Your task to perform on an android device: change the clock display to digital Image 0: 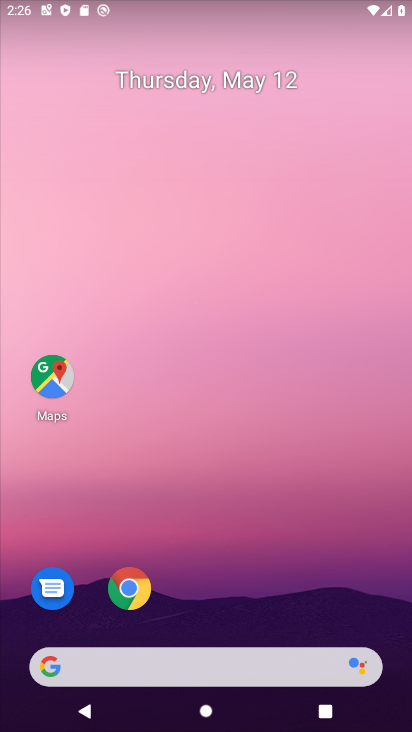
Step 0: drag from (238, 584) to (300, 56)
Your task to perform on an android device: change the clock display to digital Image 1: 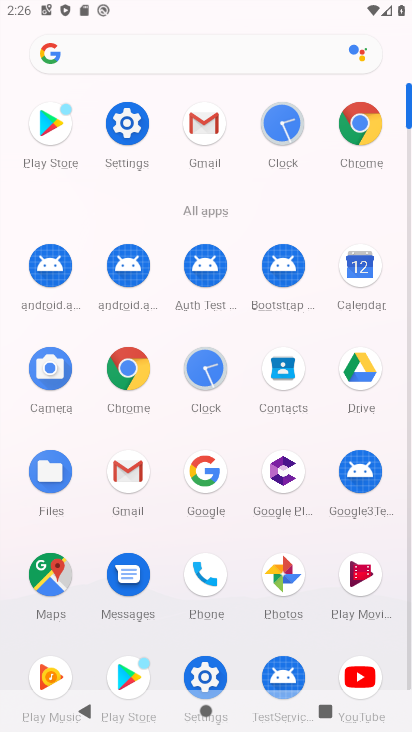
Step 1: click (273, 106)
Your task to perform on an android device: change the clock display to digital Image 2: 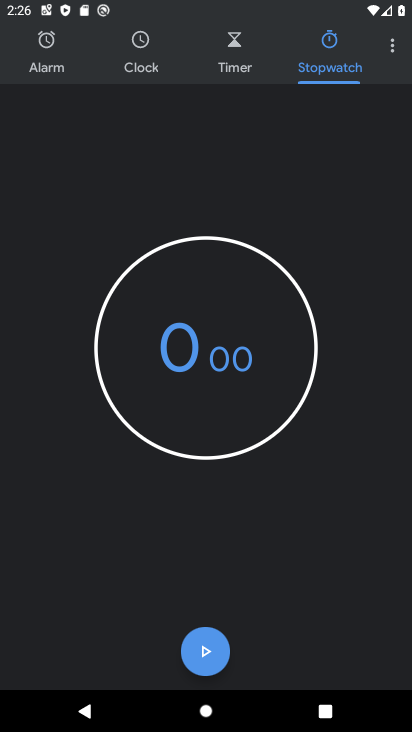
Step 2: click (389, 52)
Your task to perform on an android device: change the clock display to digital Image 3: 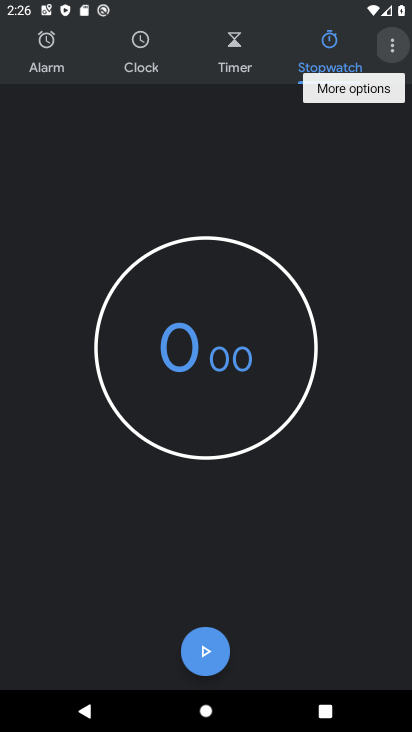
Step 3: click (389, 52)
Your task to perform on an android device: change the clock display to digital Image 4: 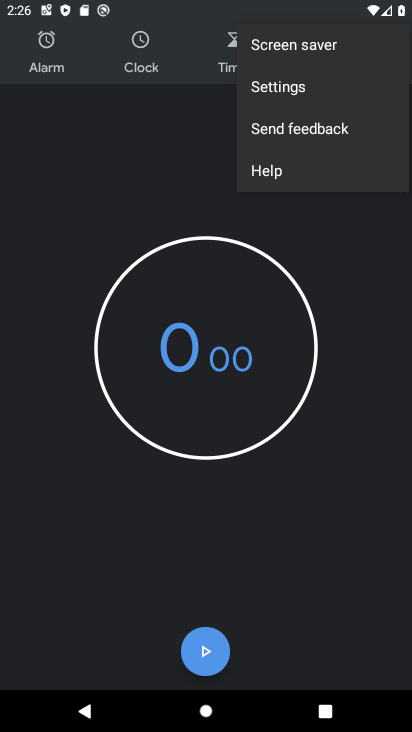
Step 4: click (314, 89)
Your task to perform on an android device: change the clock display to digital Image 5: 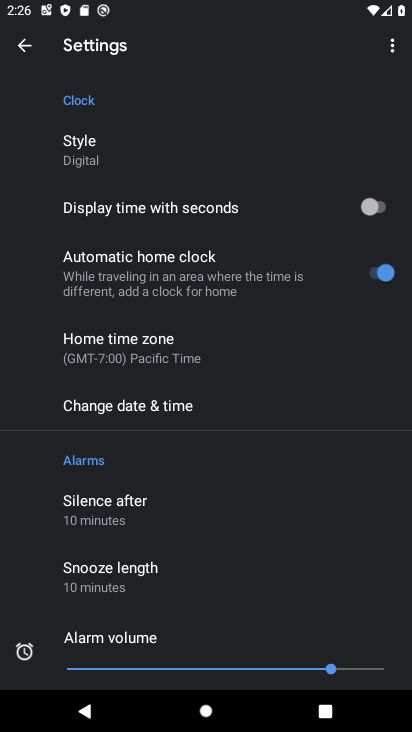
Step 5: click (94, 165)
Your task to perform on an android device: change the clock display to digital Image 6: 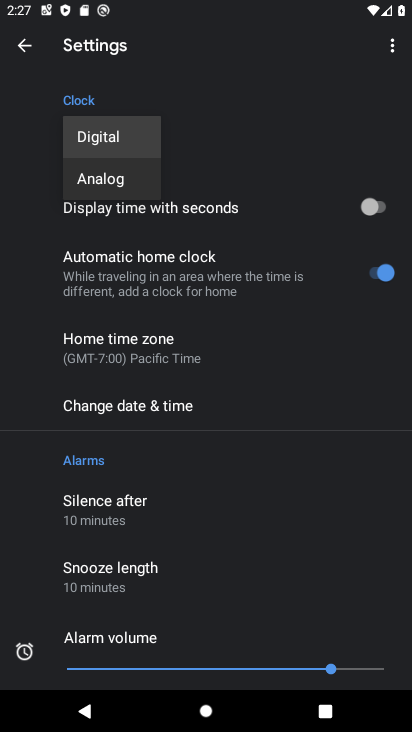
Step 6: click (97, 177)
Your task to perform on an android device: change the clock display to digital Image 7: 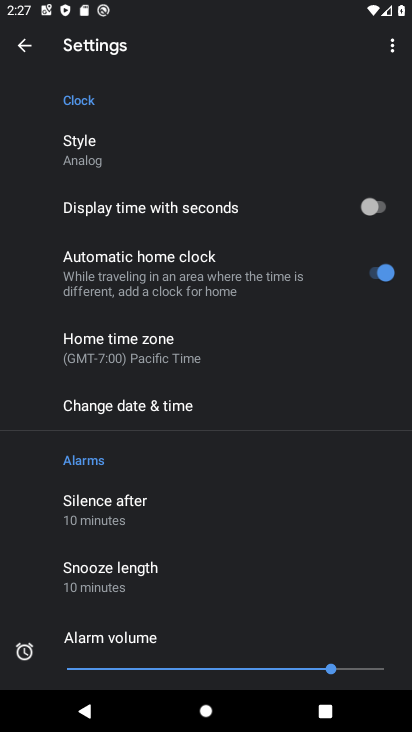
Step 7: task complete